Your task to perform on an android device: turn on improve location accuracy Image 0: 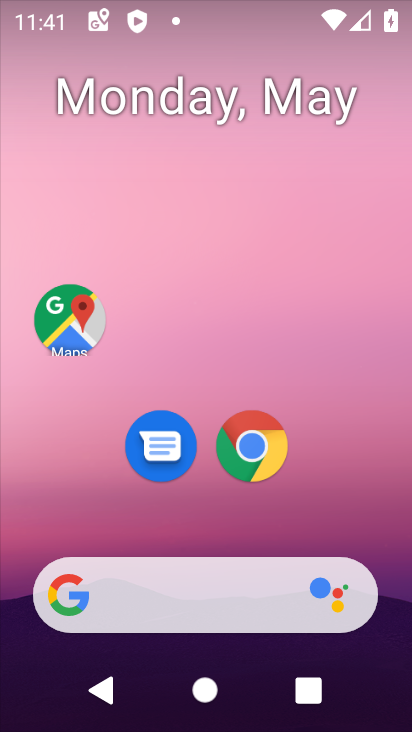
Step 0: drag from (314, 523) to (318, 205)
Your task to perform on an android device: turn on improve location accuracy Image 1: 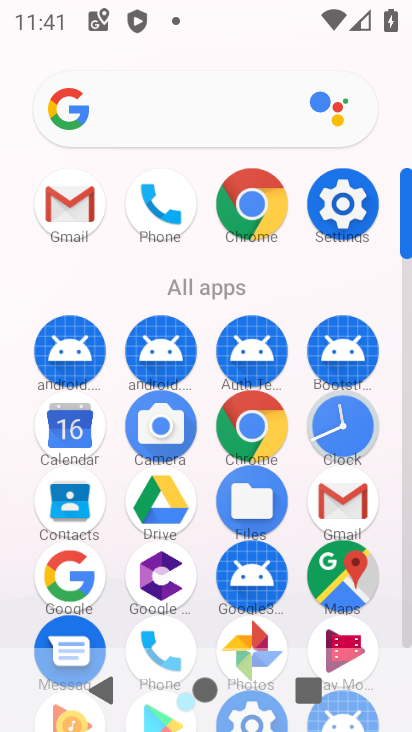
Step 1: click (340, 200)
Your task to perform on an android device: turn on improve location accuracy Image 2: 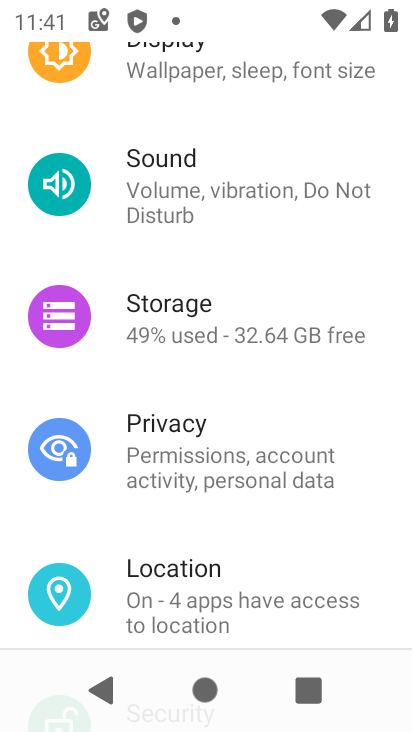
Step 2: click (175, 574)
Your task to perform on an android device: turn on improve location accuracy Image 3: 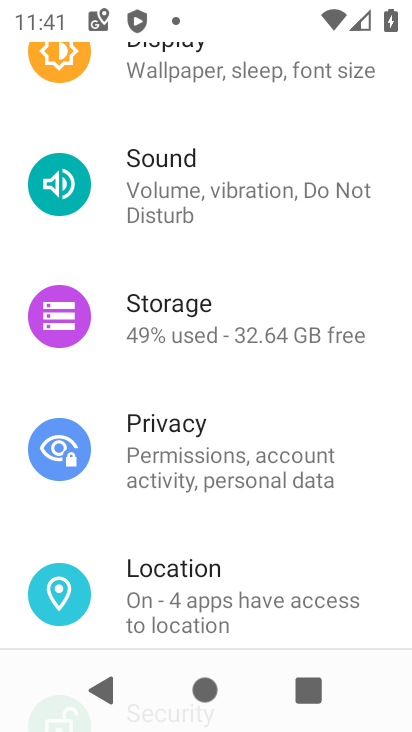
Step 3: click (218, 588)
Your task to perform on an android device: turn on improve location accuracy Image 4: 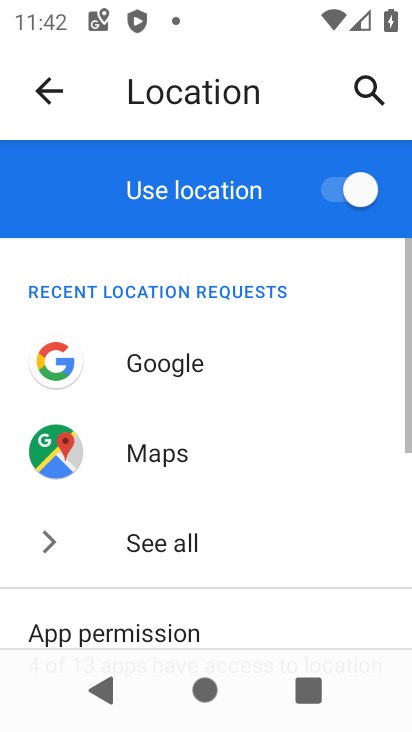
Step 4: drag from (268, 499) to (282, 283)
Your task to perform on an android device: turn on improve location accuracy Image 5: 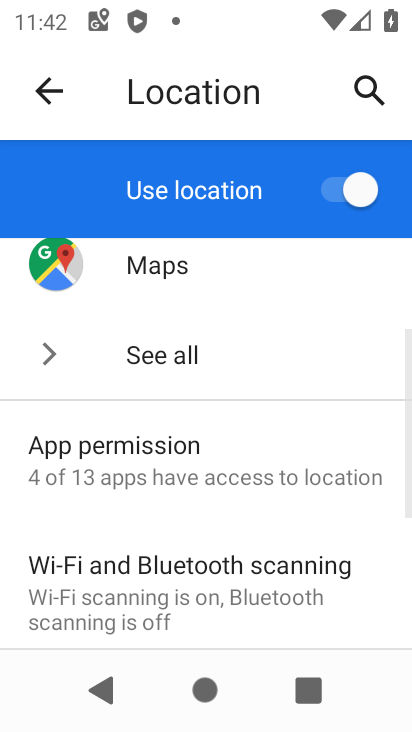
Step 5: drag from (247, 534) to (240, 233)
Your task to perform on an android device: turn on improve location accuracy Image 6: 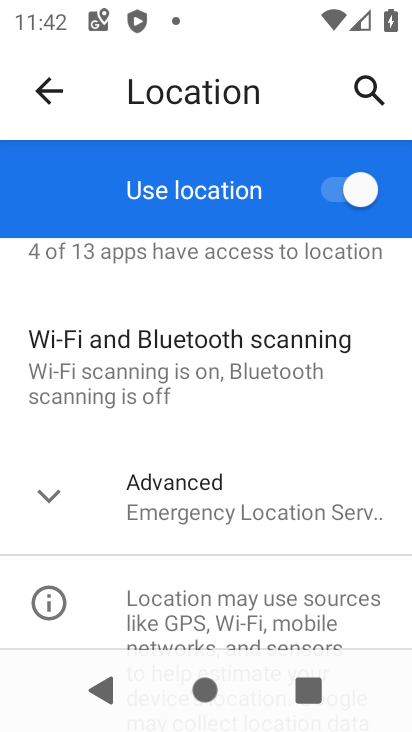
Step 6: click (203, 509)
Your task to perform on an android device: turn on improve location accuracy Image 7: 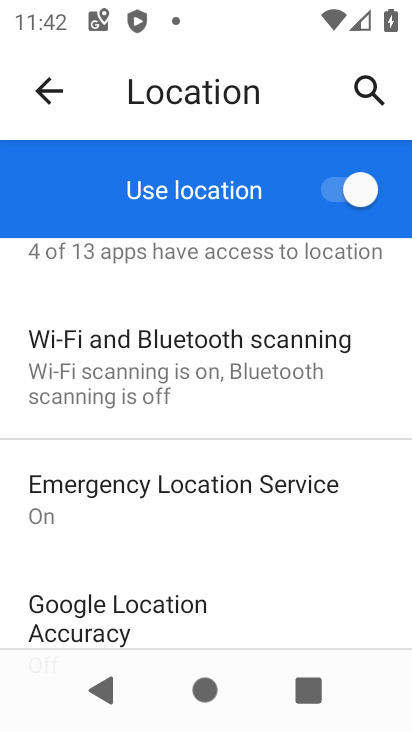
Step 7: drag from (261, 524) to (337, 191)
Your task to perform on an android device: turn on improve location accuracy Image 8: 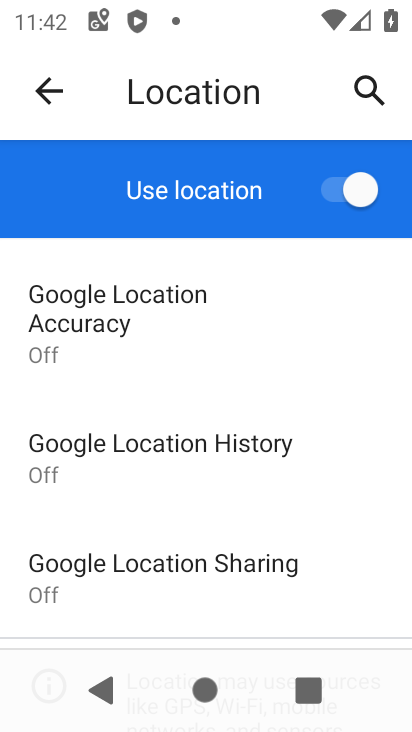
Step 8: drag from (194, 583) to (246, 381)
Your task to perform on an android device: turn on improve location accuracy Image 9: 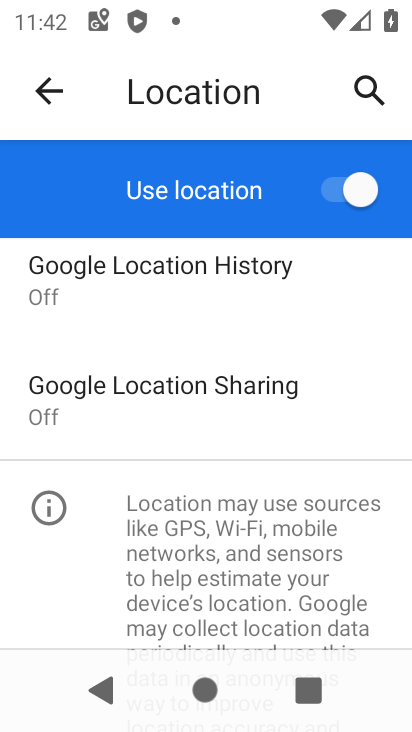
Step 9: drag from (122, 306) to (174, 510)
Your task to perform on an android device: turn on improve location accuracy Image 10: 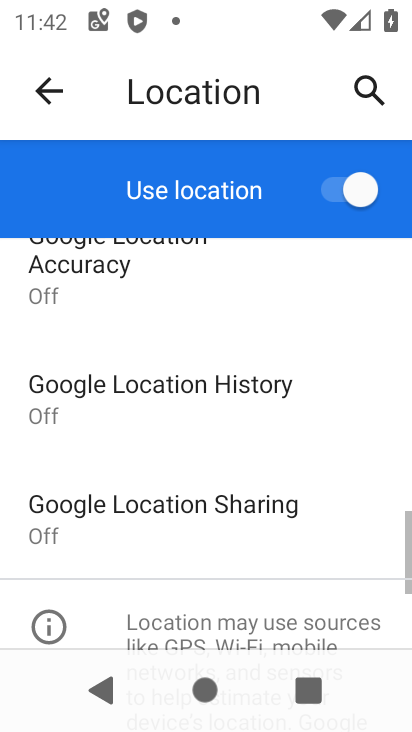
Step 10: click (201, 436)
Your task to perform on an android device: turn on improve location accuracy Image 11: 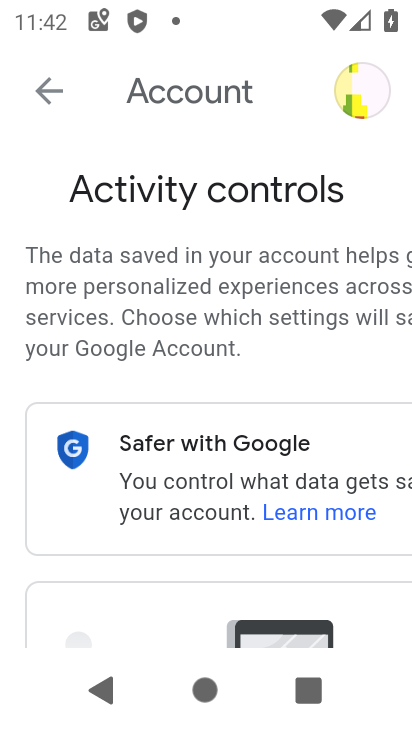
Step 11: click (44, 84)
Your task to perform on an android device: turn on improve location accuracy Image 12: 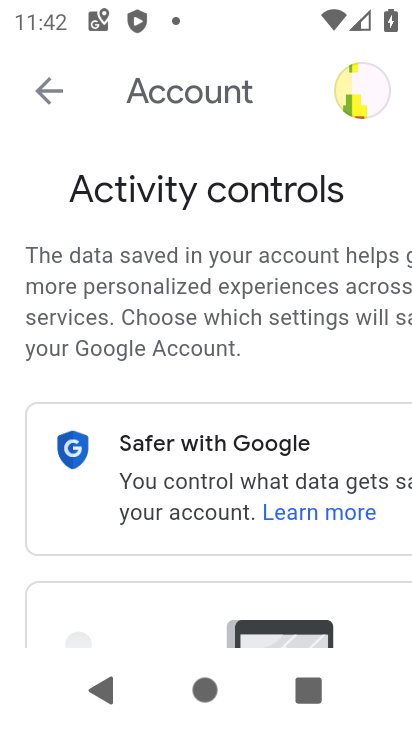
Step 12: click (57, 87)
Your task to perform on an android device: turn on improve location accuracy Image 13: 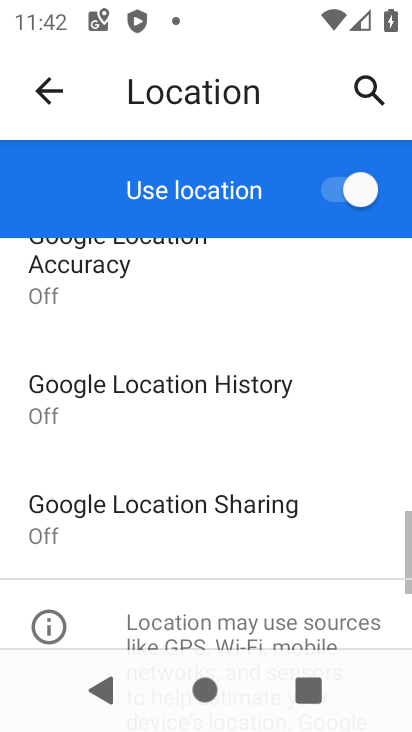
Step 13: drag from (213, 303) to (199, 384)
Your task to perform on an android device: turn on improve location accuracy Image 14: 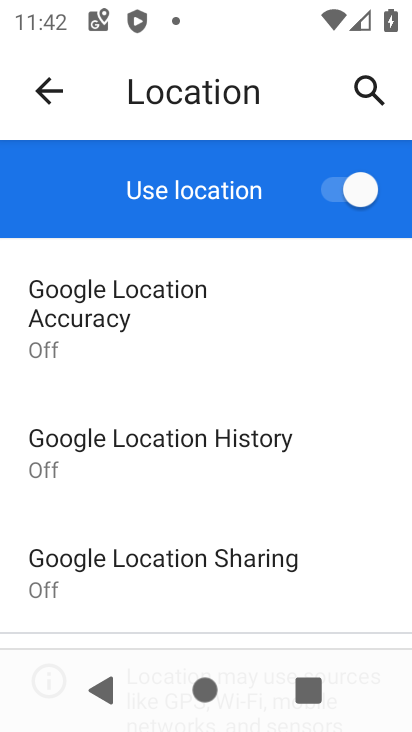
Step 14: click (165, 330)
Your task to perform on an android device: turn on improve location accuracy Image 15: 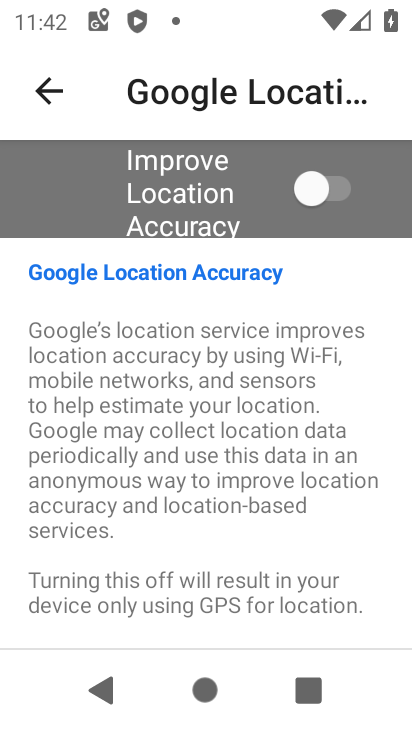
Step 15: click (302, 200)
Your task to perform on an android device: turn on improve location accuracy Image 16: 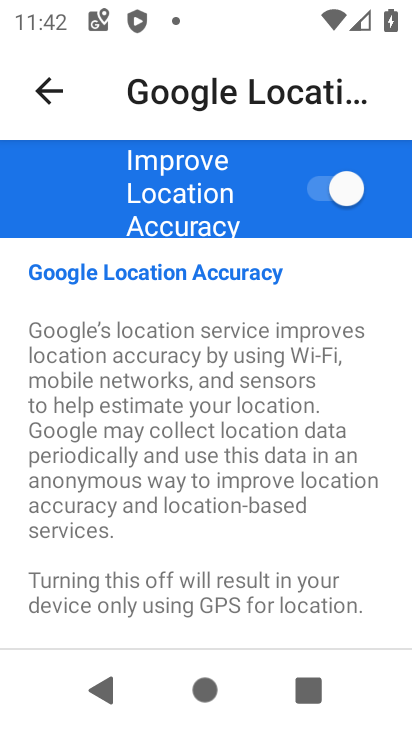
Step 16: task complete